Your task to perform on an android device: allow notifications from all sites in the chrome app Image 0: 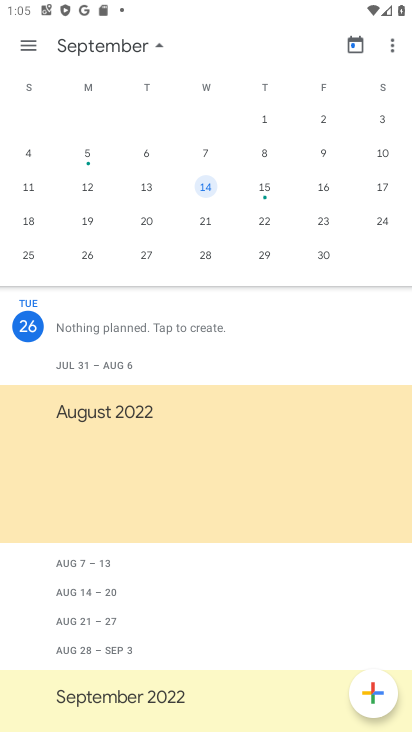
Step 0: press home button
Your task to perform on an android device: allow notifications from all sites in the chrome app Image 1: 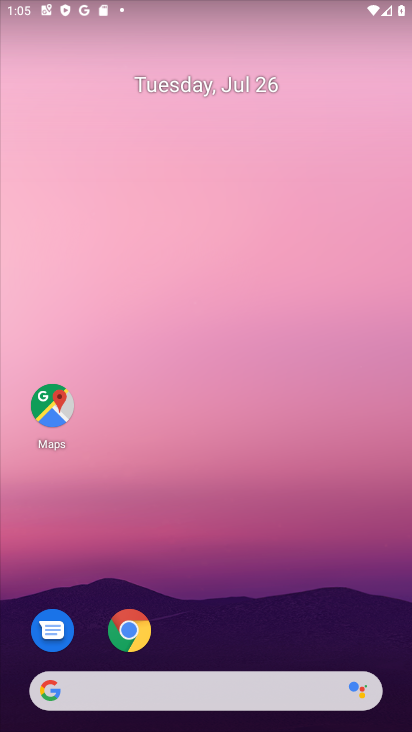
Step 1: drag from (258, 609) to (236, 32)
Your task to perform on an android device: allow notifications from all sites in the chrome app Image 2: 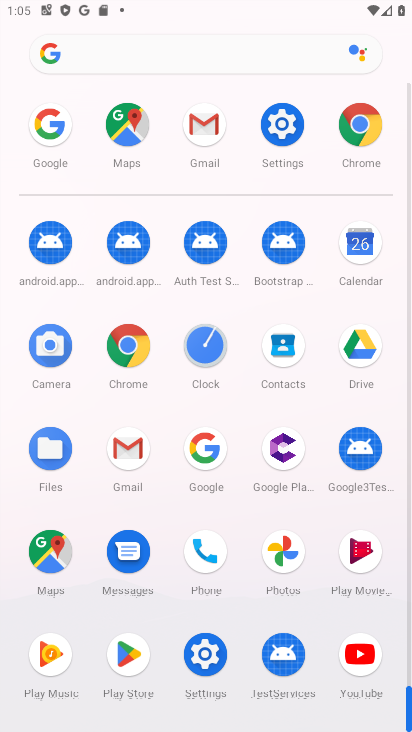
Step 2: click (361, 142)
Your task to perform on an android device: allow notifications from all sites in the chrome app Image 3: 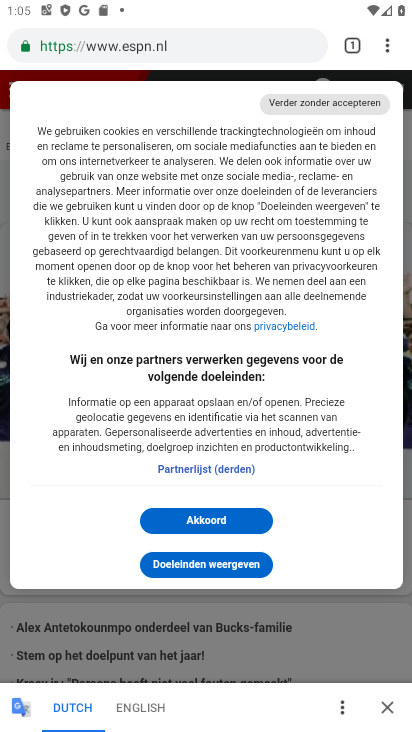
Step 3: drag from (387, 54) to (239, 545)
Your task to perform on an android device: allow notifications from all sites in the chrome app Image 4: 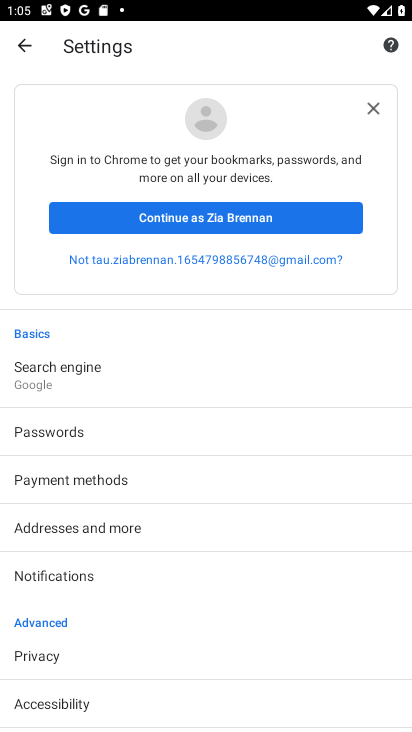
Step 4: drag from (117, 652) to (235, 207)
Your task to perform on an android device: allow notifications from all sites in the chrome app Image 5: 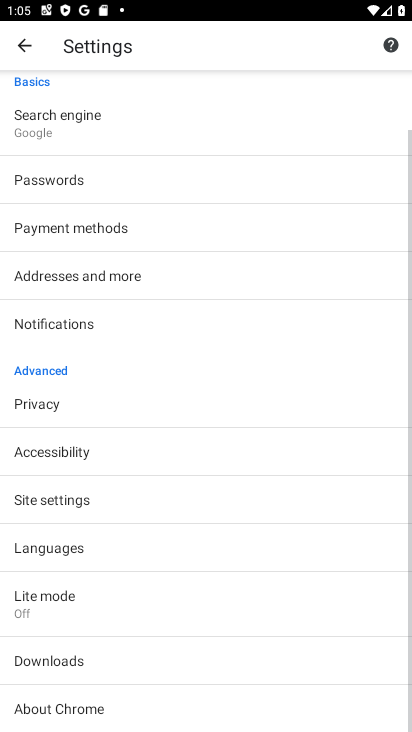
Step 5: click (72, 508)
Your task to perform on an android device: allow notifications from all sites in the chrome app Image 6: 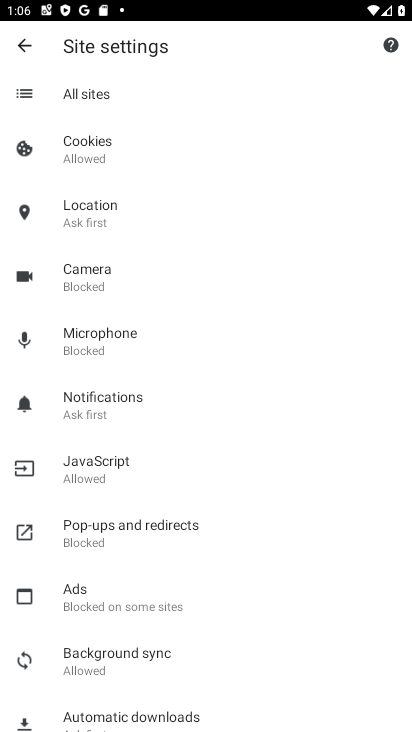
Step 6: click (103, 402)
Your task to perform on an android device: allow notifications from all sites in the chrome app Image 7: 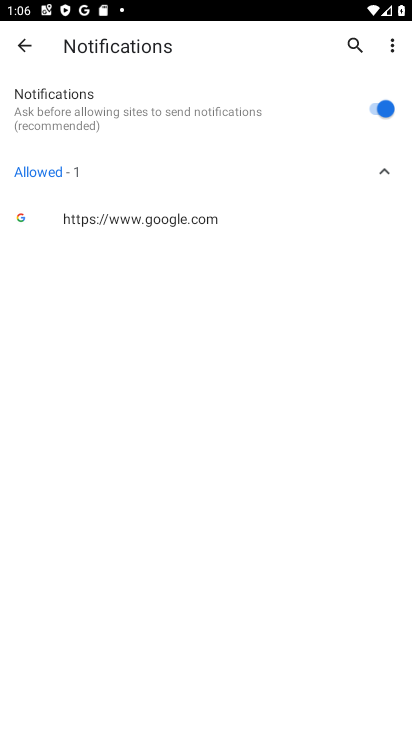
Step 7: task complete